Your task to perform on an android device: Open display settings Image 0: 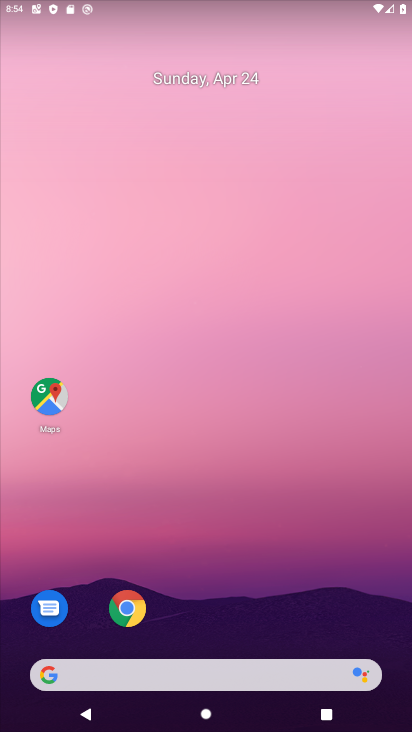
Step 0: drag from (263, 618) to (217, 242)
Your task to perform on an android device: Open display settings Image 1: 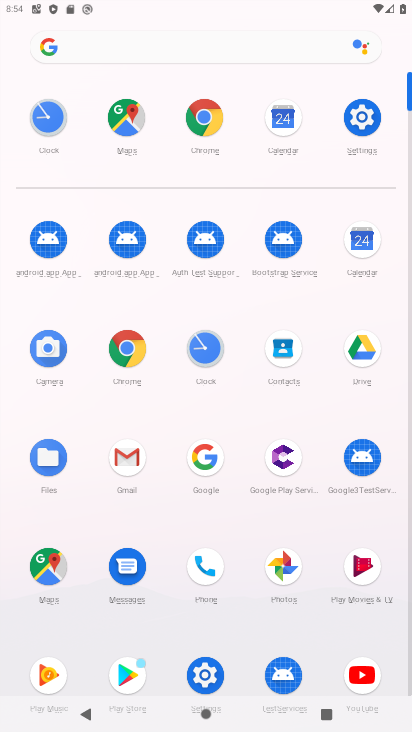
Step 1: click (363, 128)
Your task to perform on an android device: Open display settings Image 2: 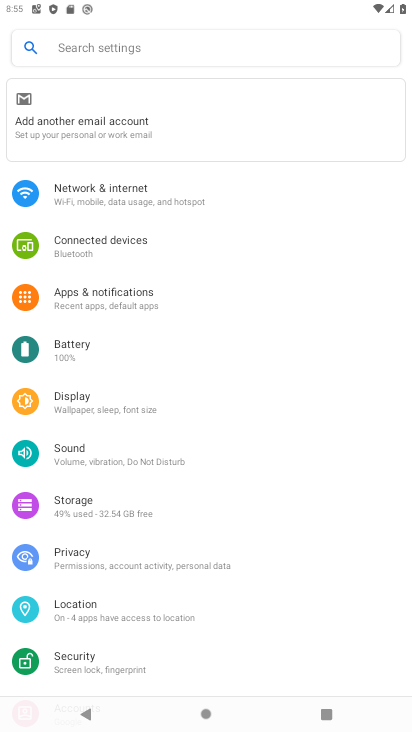
Step 2: click (134, 408)
Your task to perform on an android device: Open display settings Image 3: 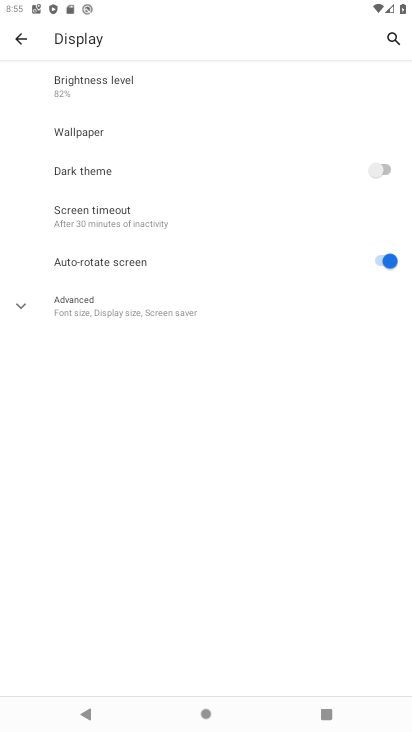
Step 3: click (68, 309)
Your task to perform on an android device: Open display settings Image 4: 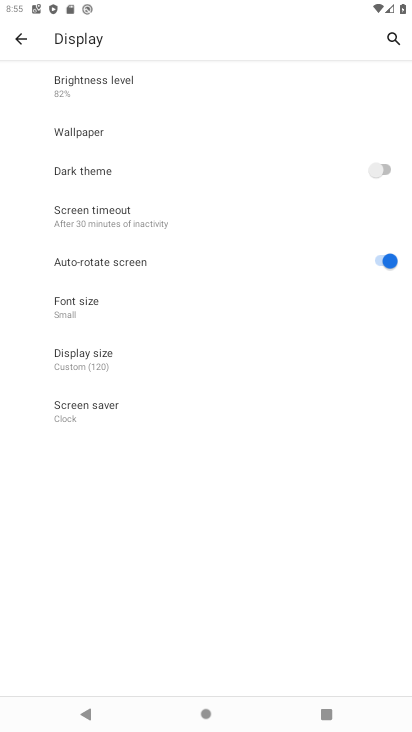
Step 4: task complete